Your task to perform on an android device: What's the weather going to be tomorrow? Image 0: 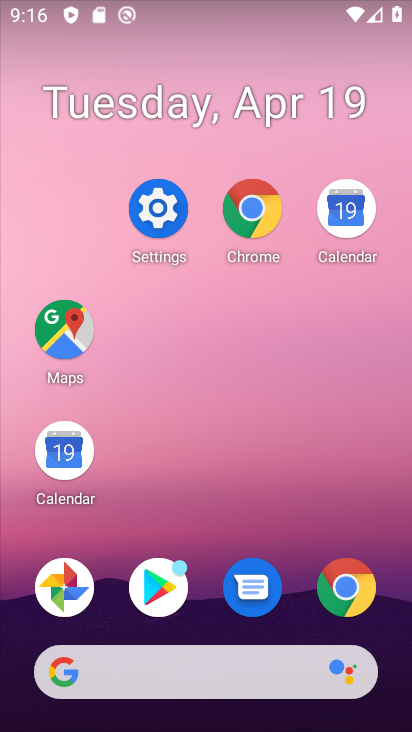
Step 0: drag from (279, 378) to (379, 354)
Your task to perform on an android device: What's the weather going to be tomorrow? Image 1: 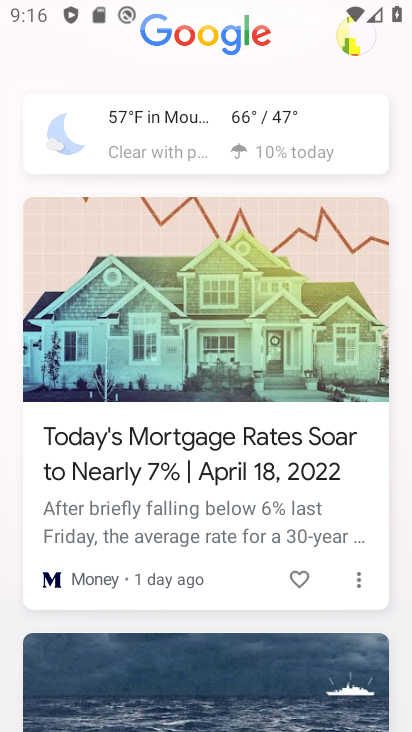
Step 1: click (394, 212)
Your task to perform on an android device: What's the weather going to be tomorrow? Image 2: 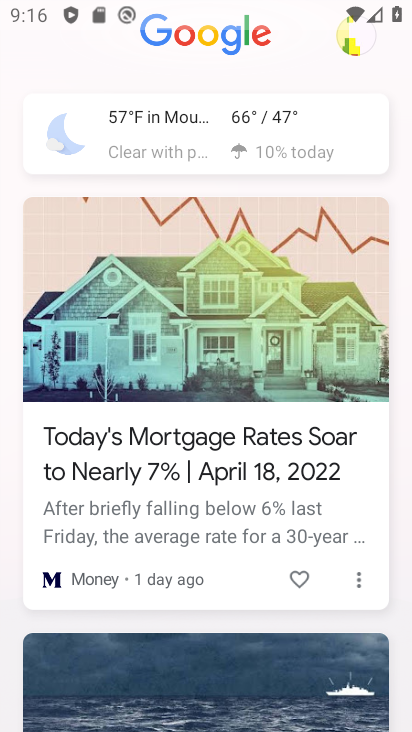
Step 2: click (252, 120)
Your task to perform on an android device: What's the weather going to be tomorrow? Image 3: 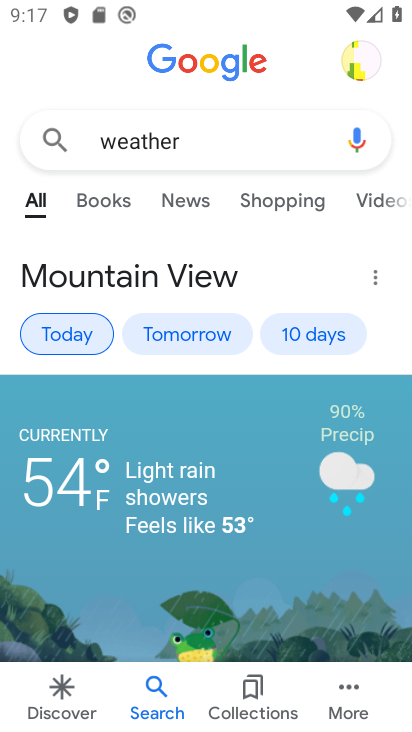
Step 3: click (180, 330)
Your task to perform on an android device: What's the weather going to be tomorrow? Image 4: 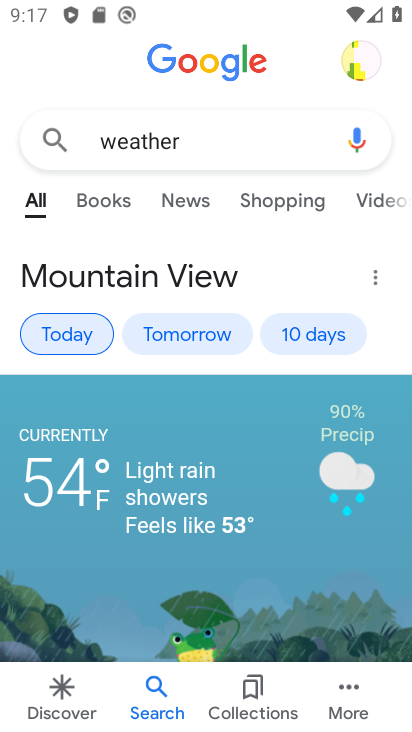
Step 4: click (180, 330)
Your task to perform on an android device: What's the weather going to be tomorrow? Image 5: 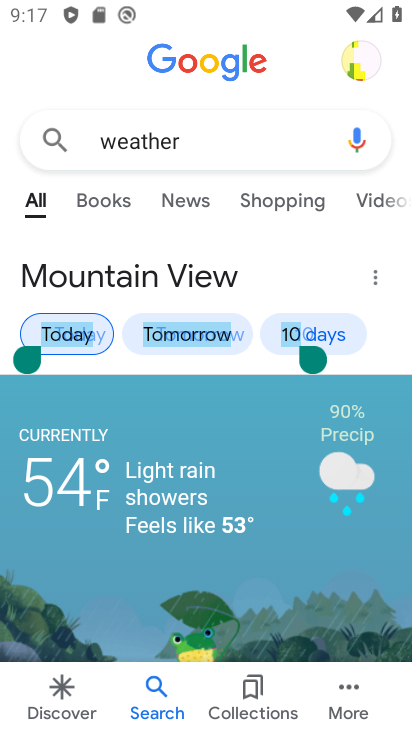
Step 5: click (185, 335)
Your task to perform on an android device: What's the weather going to be tomorrow? Image 6: 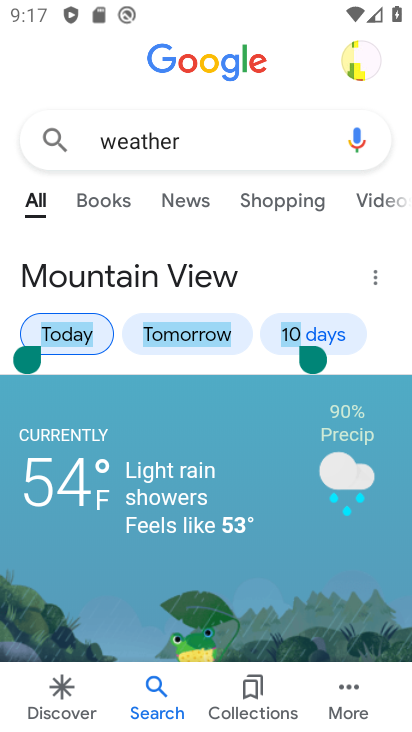
Step 6: click (126, 363)
Your task to perform on an android device: What's the weather going to be tomorrow? Image 7: 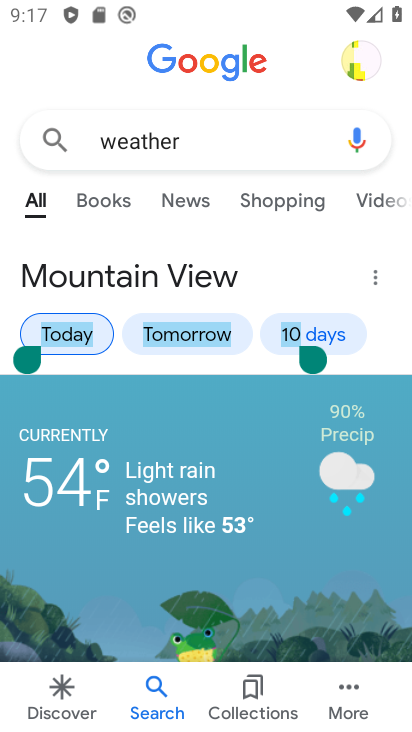
Step 7: click (158, 335)
Your task to perform on an android device: What's the weather going to be tomorrow? Image 8: 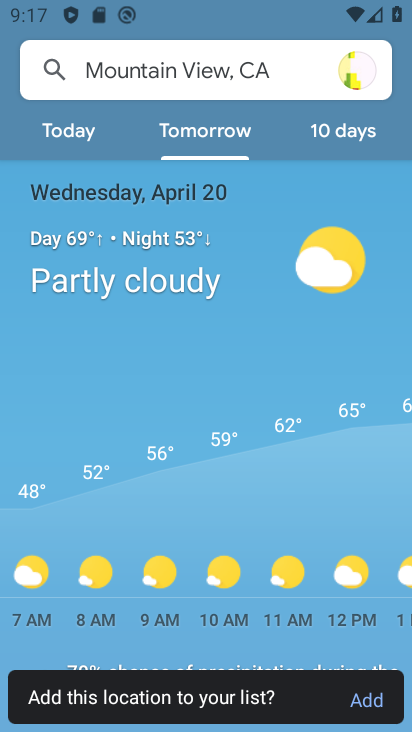
Step 8: task complete